Your task to perform on an android device: turn on location history Image 0: 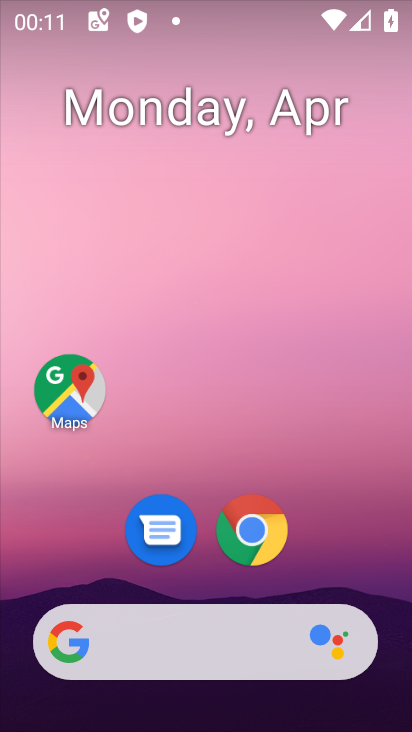
Step 0: drag from (173, 646) to (304, 98)
Your task to perform on an android device: turn on location history Image 1: 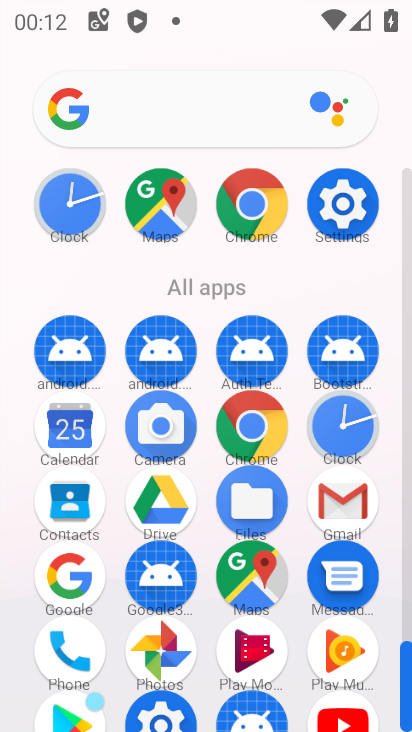
Step 1: click (338, 206)
Your task to perform on an android device: turn on location history Image 2: 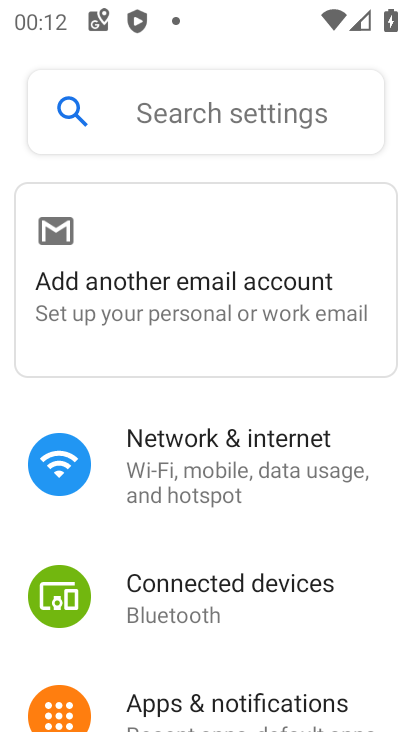
Step 2: drag from (151, 673) to (329, 97)
Your task to perform on an android device: turn on location history Image 3: 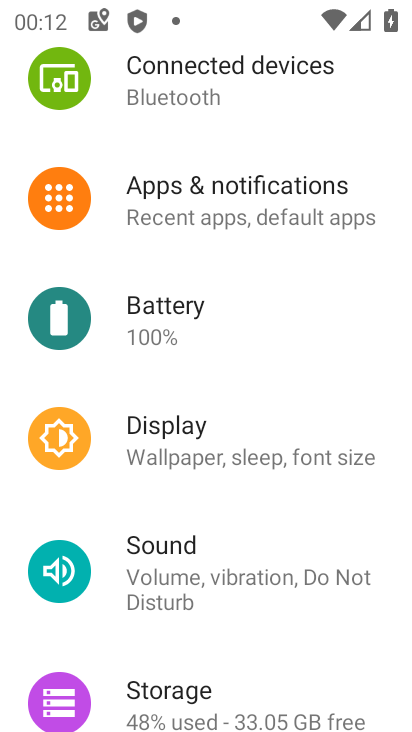
Step 3: drag from (155, 648) to (355, 40)
Your task to perform on an android device: turn on location history Image 4: 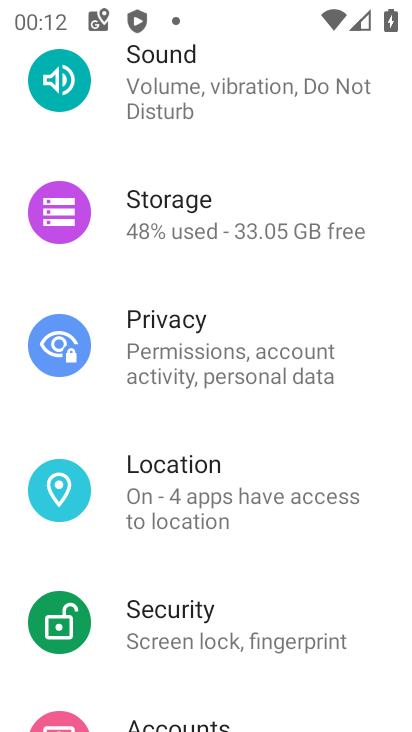
Step 4: click (194, 469)
Your task to perform on an android device: turn on location history Image 5: 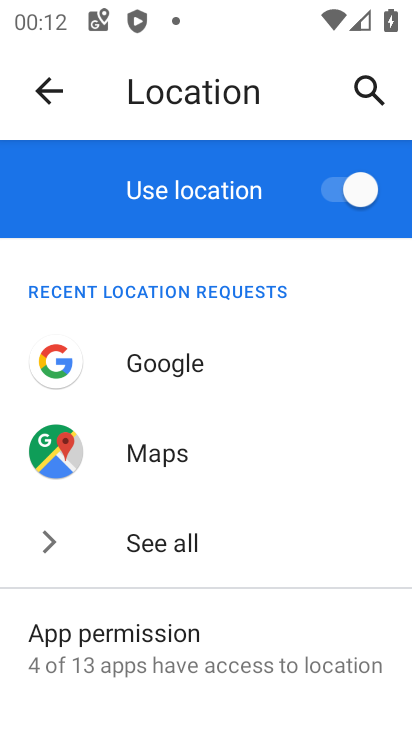
Step 5: drag from (162, 657) to (284, 155)
Your task to perform on an android device: turn on location history Image 6: 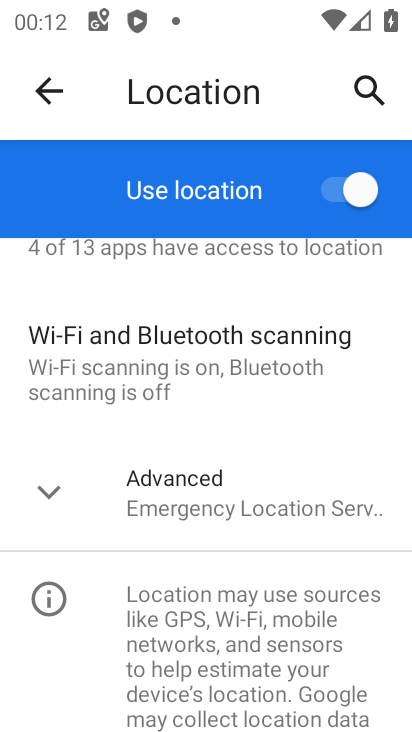
Step 6: click (172, 482)
Your task to perform on an android device: turn on location history Image 7: 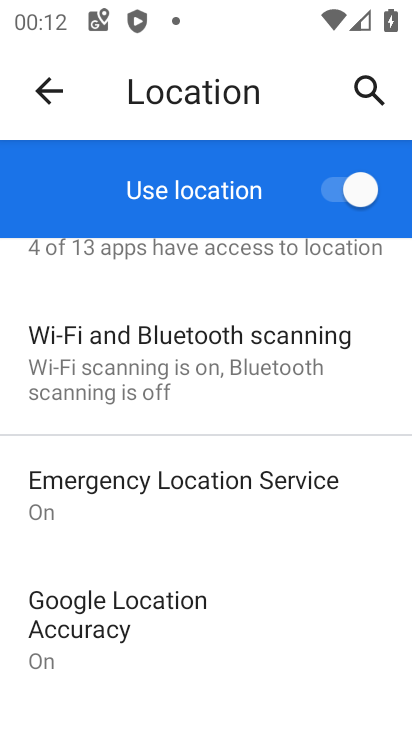
Step 7: drag from (150, 632) to (255, 228)
Your task to perform on an android device: turn on location history Image 8: 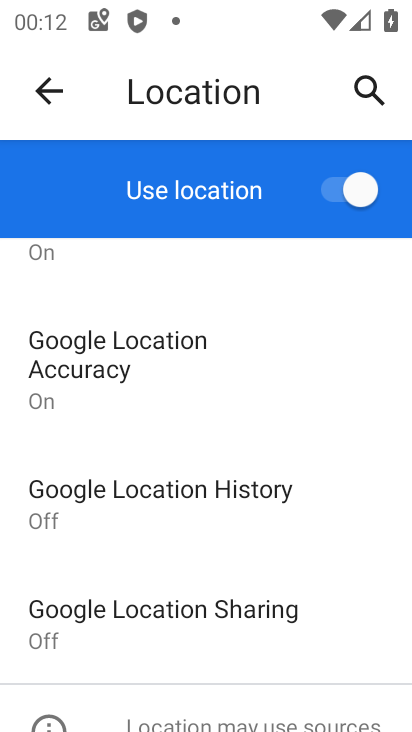
Step 8: click (99, 494)
Your task to perform on an android device: turn on location history Image 9: 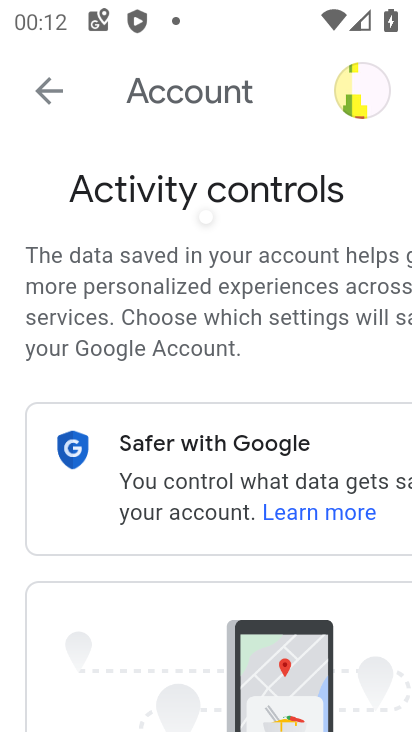
Step 9: drag from (132, 644) to (268, 127)
Your task to perform on an android device: turn on location history Image 10: 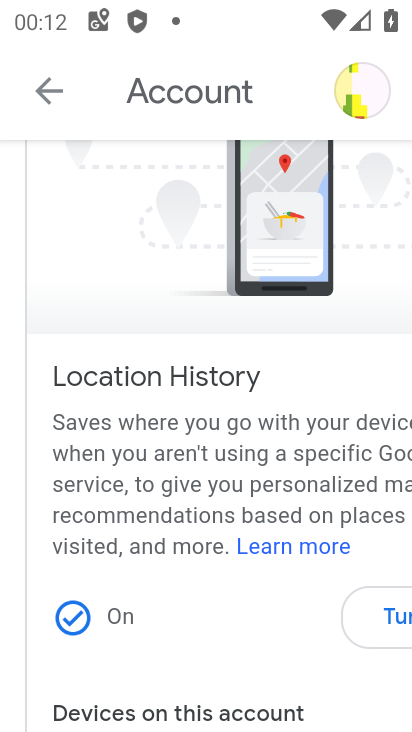
Step 10: click (398, 622)
Your task to perform on an android device: turn on location history Image 11: 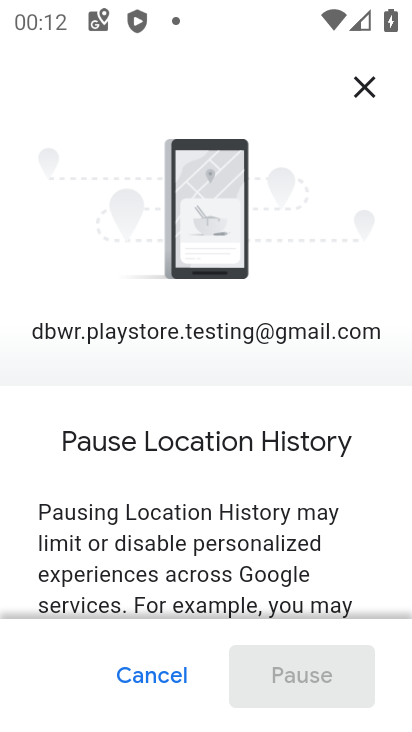
Step 11: drag from (207, 550) to (311, 179)
Your task to perform on an android device: turn on location history Image 12: 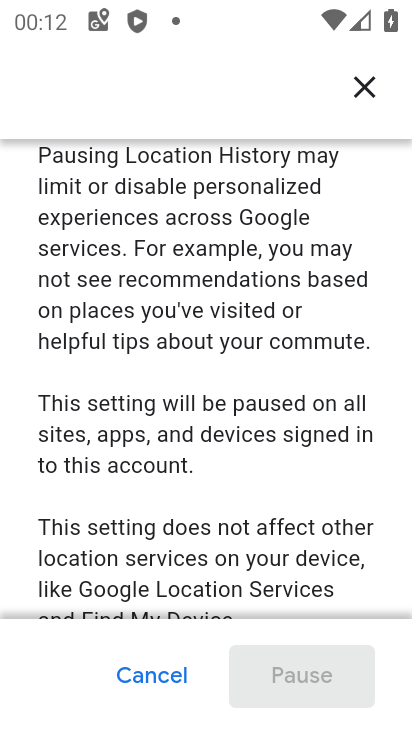
Step 12: drag from (230, 478) to (321, 64)
Your task to perform on an android device: turn on location history Image 13: 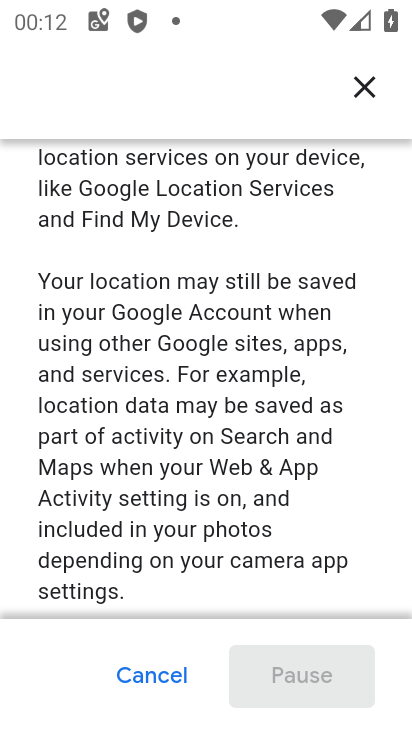
Step 13: drag from (249, 543) to (374, 27)
Your task to perform on an android device: turn on location history Image 14: 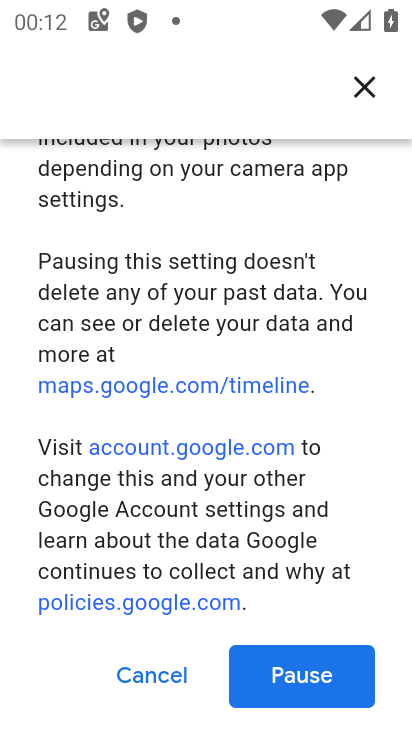
Step 14: click (301, 685)
Your task to perform on an android device: turn on location history Image 15: 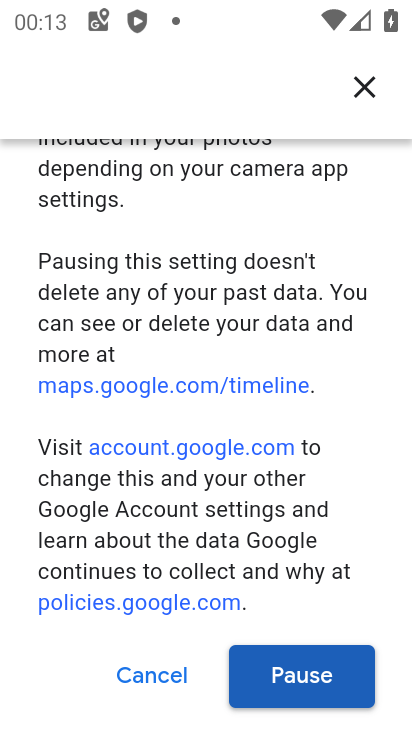
Step 15: click (290, 681)
Your task to perform on an android device: turn on location history Image 16: 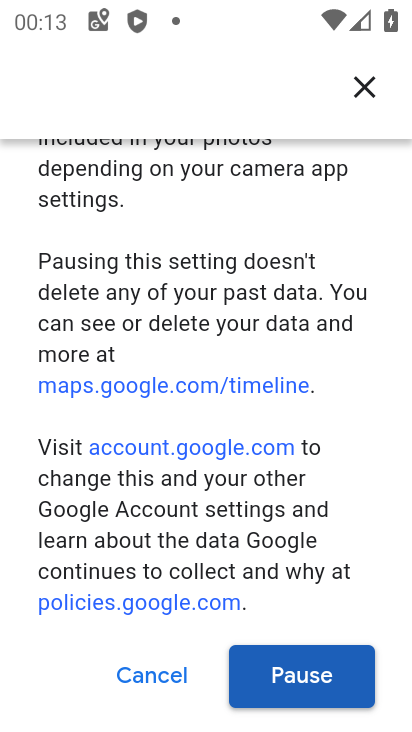
Step 16: click (302, 679)
Your task to perform on an android device: turn on location history Image 17: 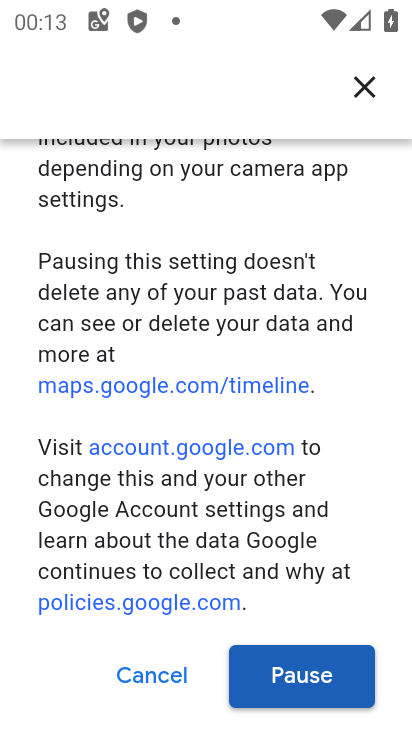
Step 17: click (300, 678)
Your task to perform on an android device: turn on location history Image 18: 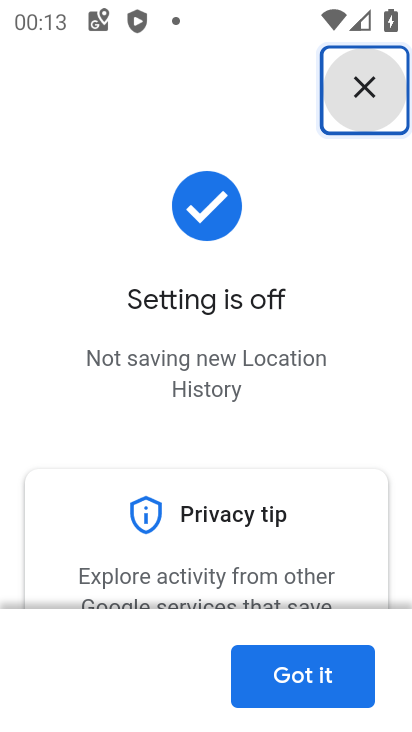
Step 18: click (296, 669)
Your task to perform on an android device: turn on location history Image 19: 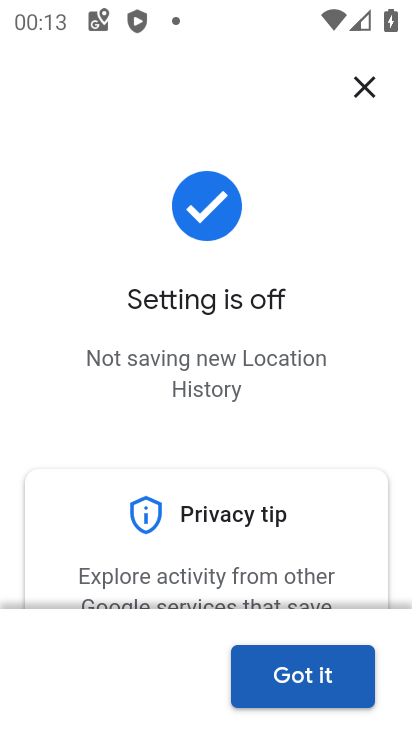
Step 19: task complete